Your task to perform on an android device: turn off notifications settings in the gmail app Image 0: 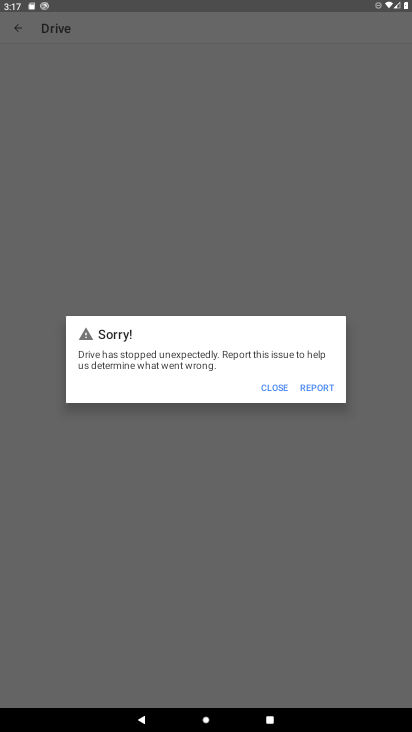
Step 0: click (271, 383)
Your task to perform on an android device: turn off notifications settings in the gmail app Image 1: 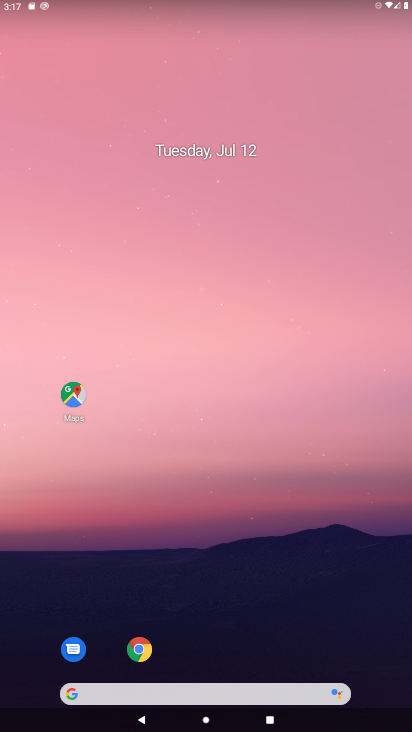
Step 1: drag from (243, 588) to (234, 235)
Your task to perform on an android device: turn off notifications settings in the gmail app Image 2: 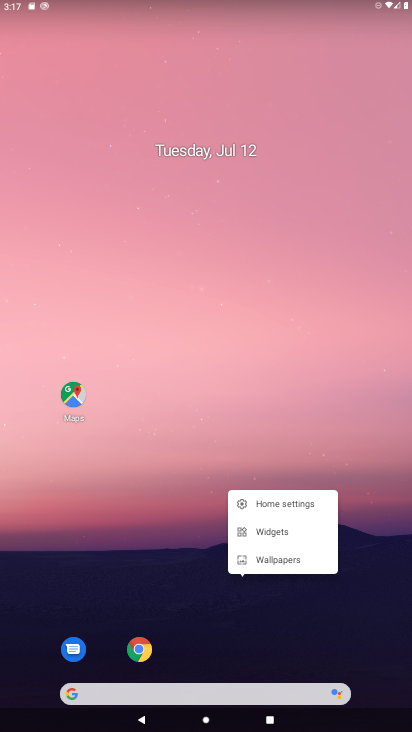
Step 2: click (198, 426)
Your task to perform on an android device: turn off notifications settings in the gmail app Image 3: 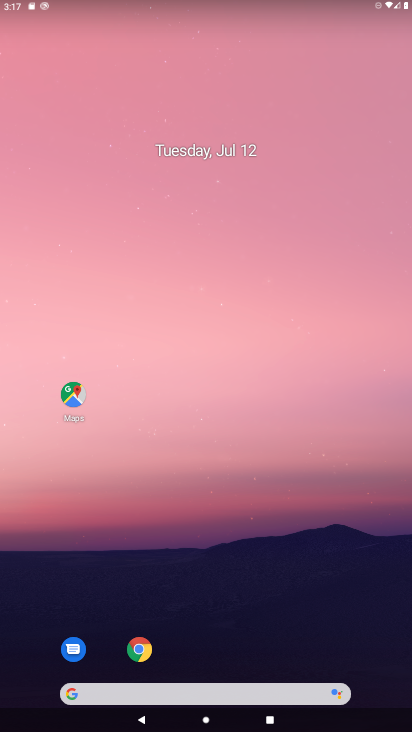
Step 3: drag from (214, 603) to (174, 212)
Your task to perform on an android device: turn off notifications settings in the gmail app Image 4: 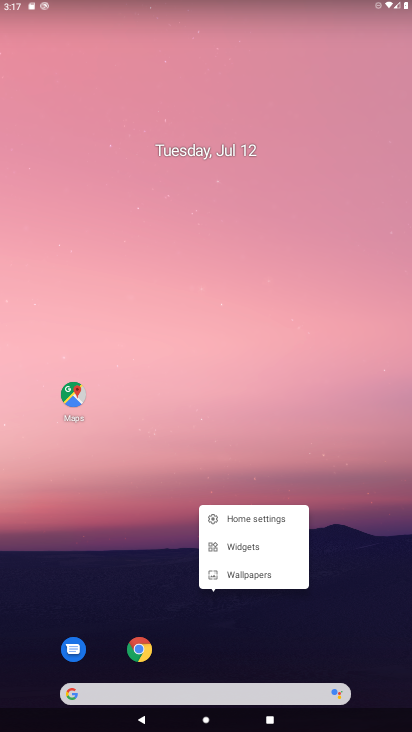
Step 4: click (191, 283)
Your task to perform on an android device: turn off notifications settings in the gmail app Image 5: 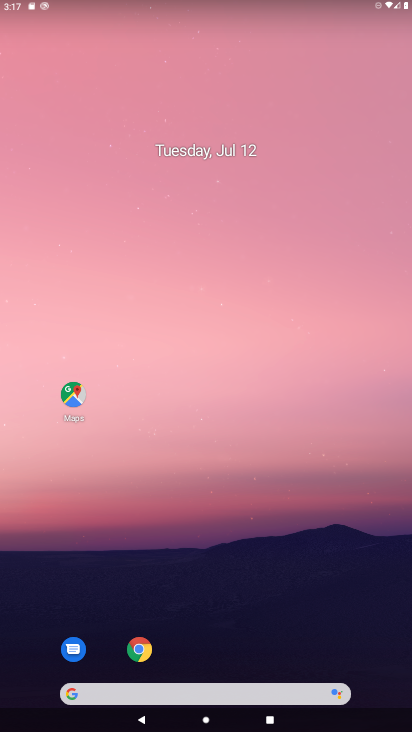
Step 5: drag from (255, 622) to (199, 178)
Your task to perform on an android device: turn off notifications settings in the gmail app Image 6: 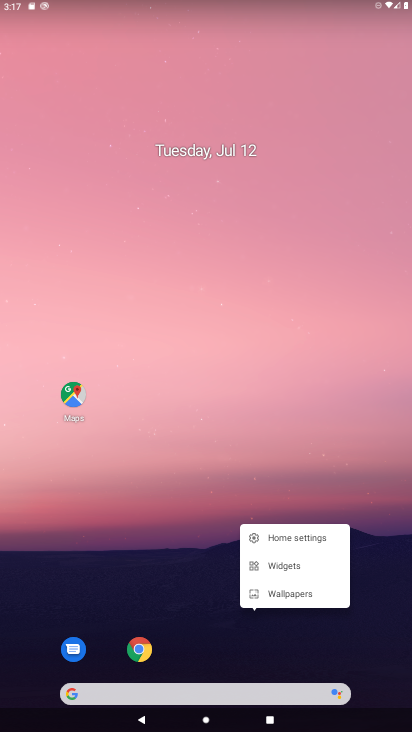
Step 6: click (181, 415)
Your task to perform on an android device: turn off notifications settings in the gmail app Image 7: 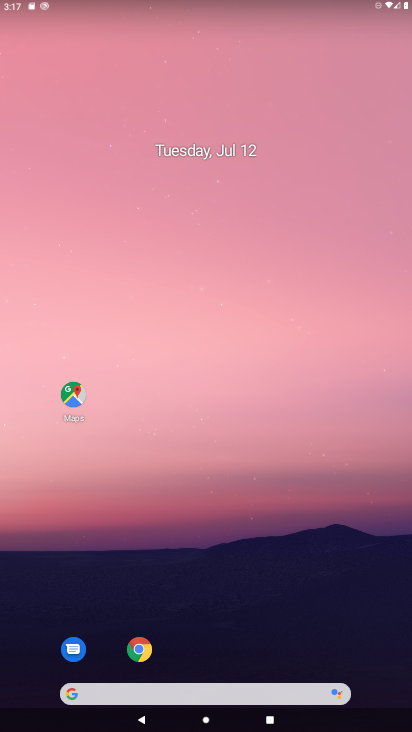
Step 7: drag from (213, 633) to (242, 101)
Your task to perform on an android device: turn off notifications settings in the gmail app Image 8: 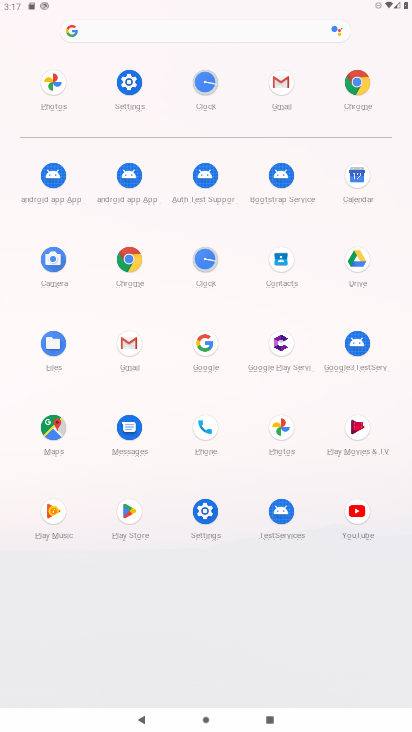
Step 8: click (298, 101)
Your task to perform on an android device: turn off notifications settings in the gmail app Image 9: 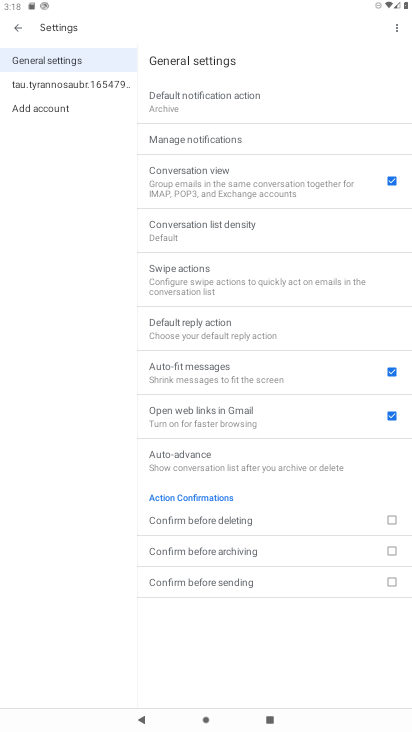
Step 9: click (249, 150)
Your task to perform on an android device: turn off notifications settings in the gmail app Image 10: 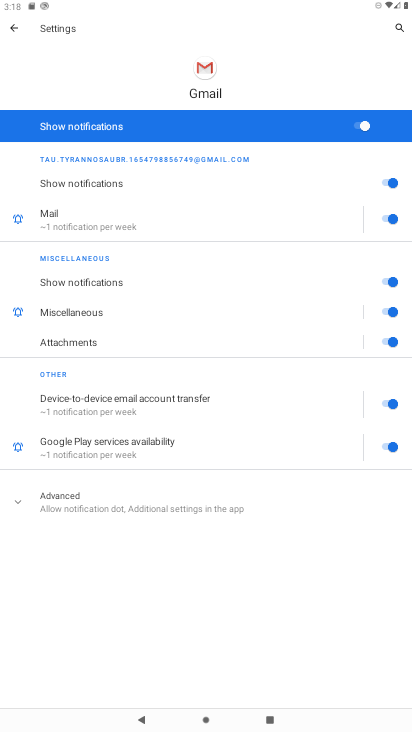
Step 10: task complete